Your task to perform on an android device: Go to Android settings Image 0: 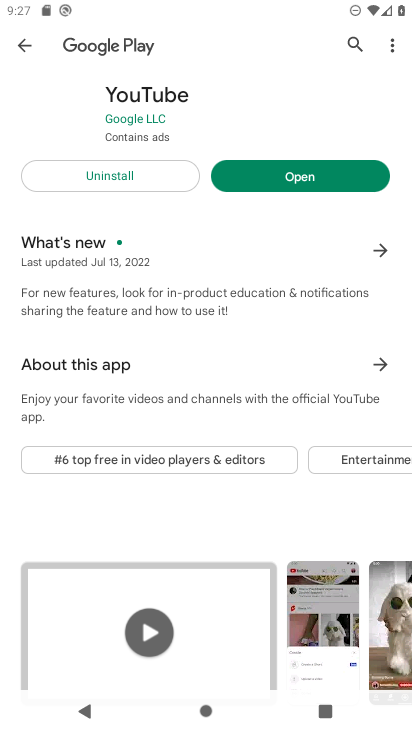
Step 0: drag from (184, 629) to (336, 333)
Your task to perform on an android device: Go to Android settings Image 1: 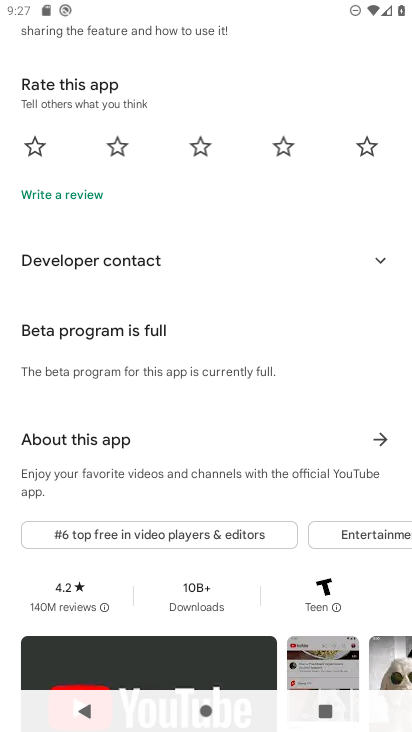
Step 1: press home button
Your task to perform on an android device: Go to Android settings Image 2: 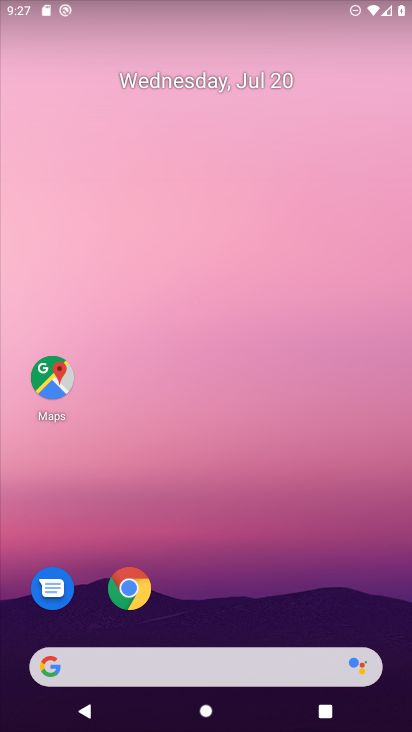
Step 2: drag from (218, 616) to (197, 12)
Your task to perform on an android device: Go to Android settings Image 3: 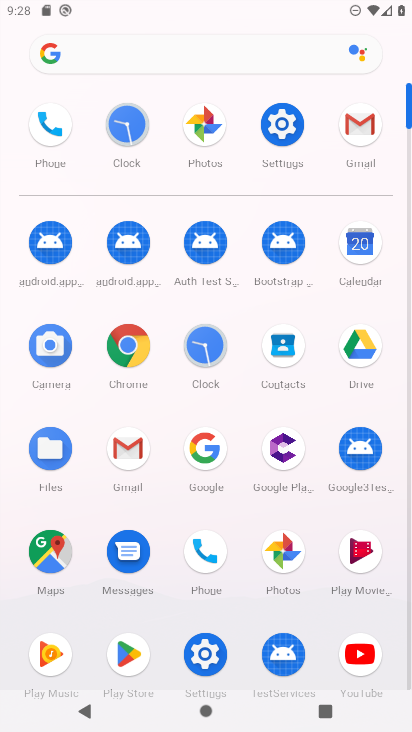
Step 3: click (291, 152)
Your task to perform on an android device: Go to Android settings Image 4: 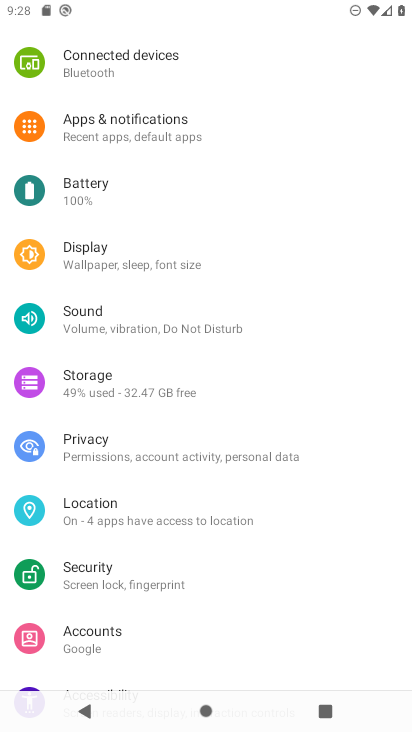
Step 4: task complete